Your task to perform on an android device: Check the weather Image 0: 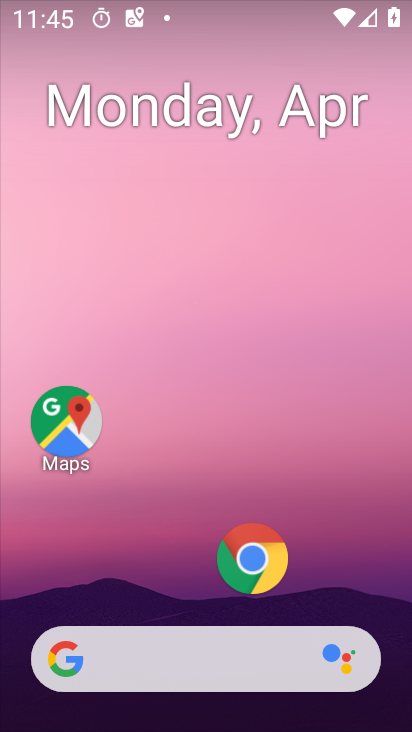
Step 0: drag from (151, 612) to (173, 116)
Your task to perform on an android device: Check the weather Image 1: 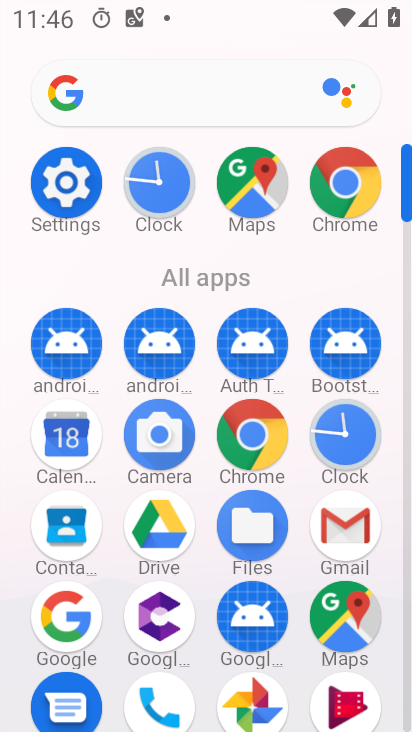
Step 1: click (344, 176)
Your task to perform on an android device: Check the weather Image 2: 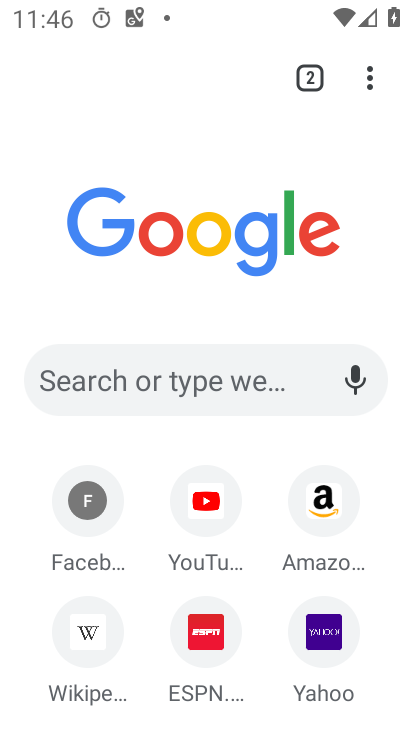
Step 2: click (81, 385)
Your task to perform on an android device: Check the weather Image 3: 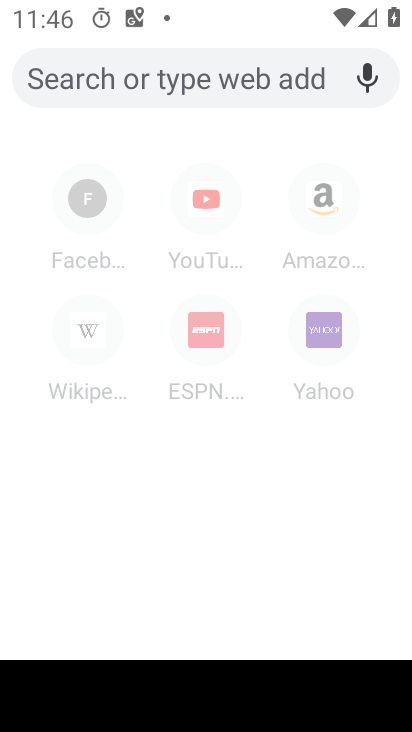
Step 3: type "weather"
Your task to perform on an android device: Check the weather Image 4: 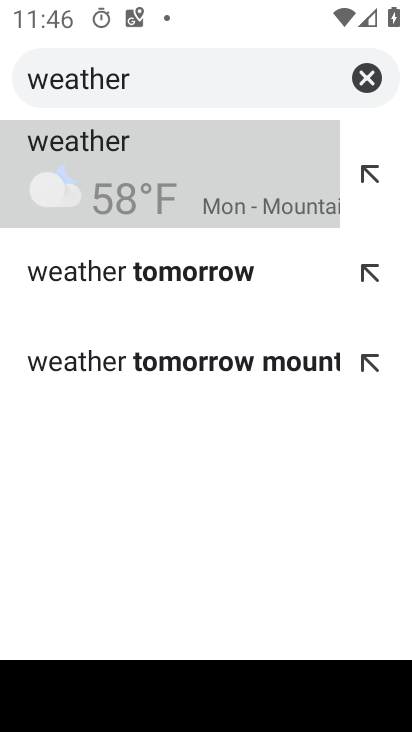
Step 4: click (110, 171)
Your task to perform on an android device: Check the weather Image 5: 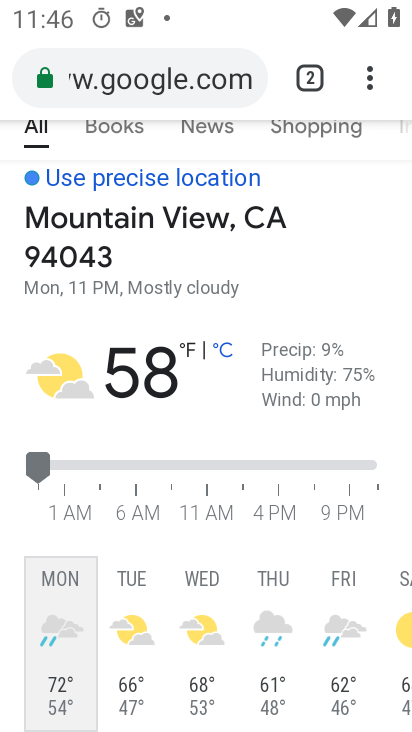
Step 5: task complete